Your task to perform on an android device: open chrome and create a bookmark for the current page Image 0: 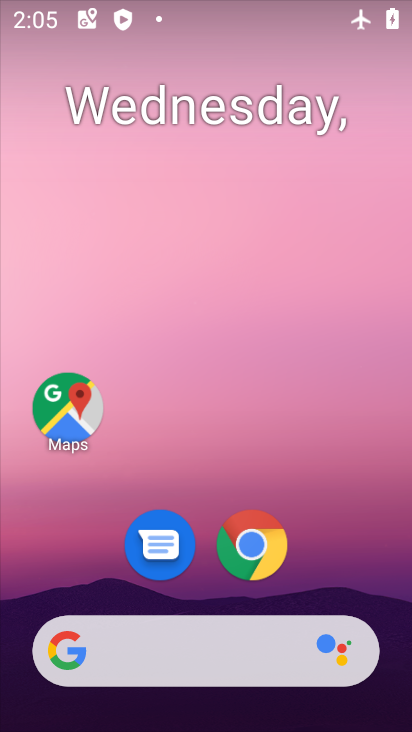
Step 0: click (254, 546)
Your task to perform on an android device: open chrome and create a bookmark for the current page Image 1: 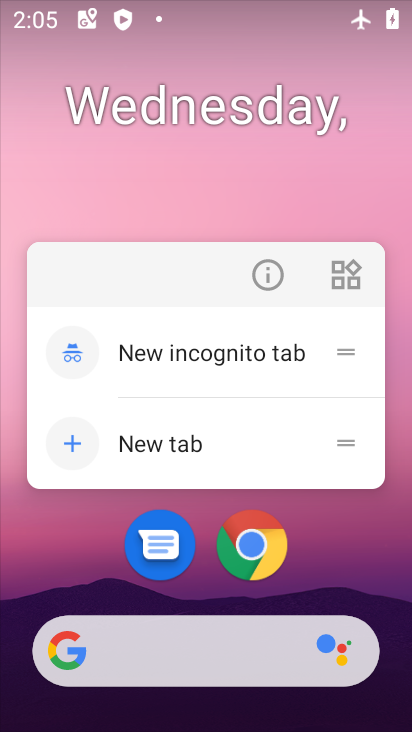
Step 1: click (253, 545)
Your task to perform on an android device: open chrome and create a bookmark for the current page Image 2: 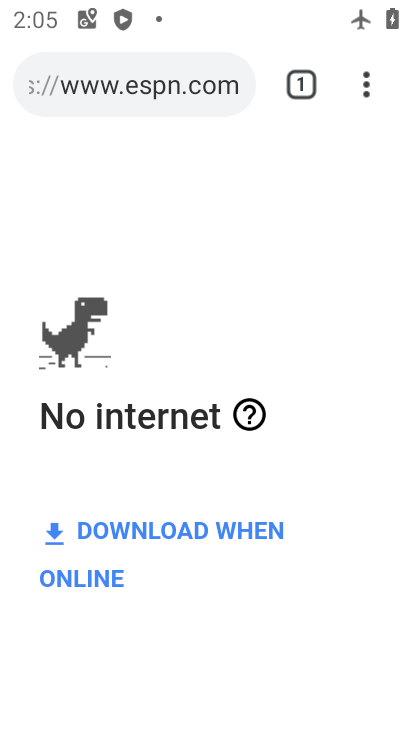
Step 2: task complete